Your task to perform on an android device: Go to accessibility settings Image 0: 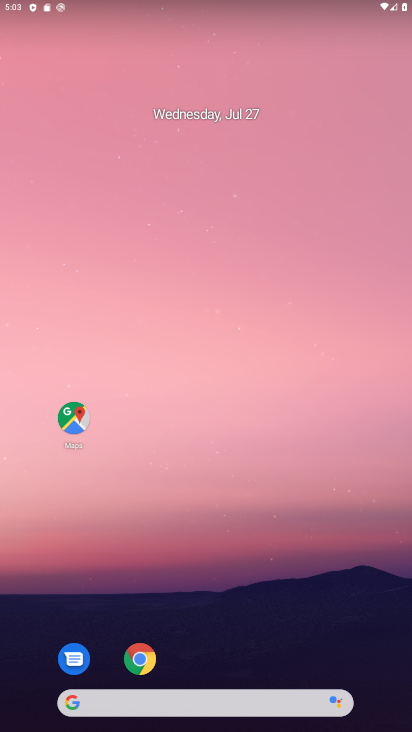
Step 0: drag from (236, 612) to (250, 186)
Your task to perform on an android device: Go to accessibility settings Image 1: 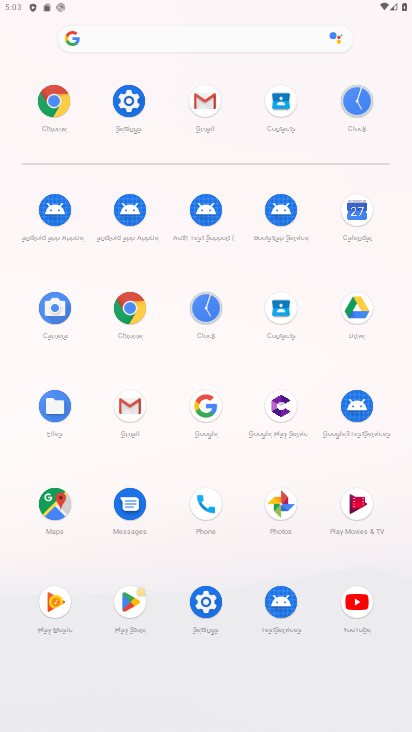
Step 1: click (209, 590)
Your task to perform on an android device: Go to accessibility settings Image 2: 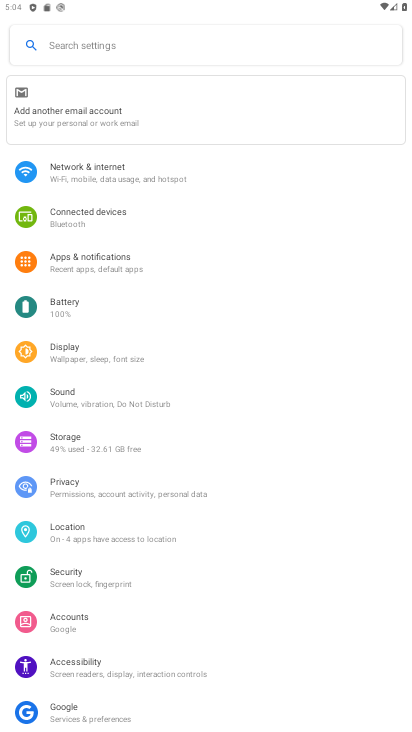
Step 2: click (76, 664)
Your task to perform on an android device: Go to accessibility settings Image 3: 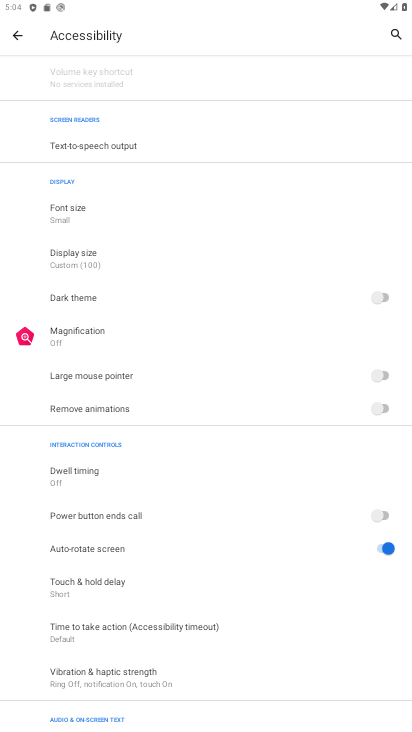
Step 3: task complete